Your task to perform on an android device: open app "Instagram" (install if not already installed) and enter user name: "nobler@yahoo.com" and password: "foraging" Image 0: 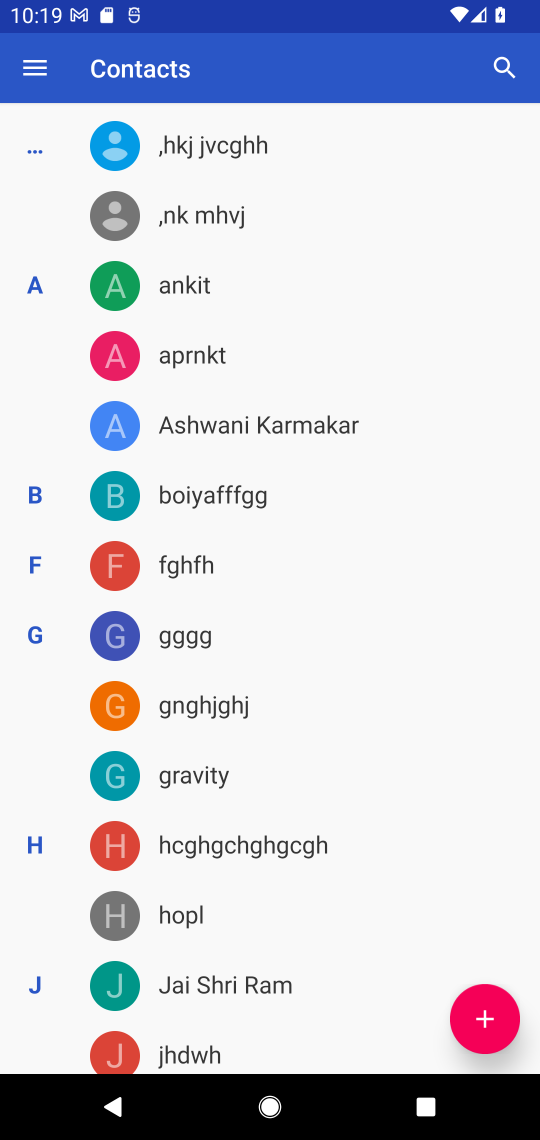
Step 0: press home button
Your task to perform on an android device: open app "Instagram" (install if not already installed) and enter user name: "nobler@yahoo.com" and password: "foraging" Image 1: 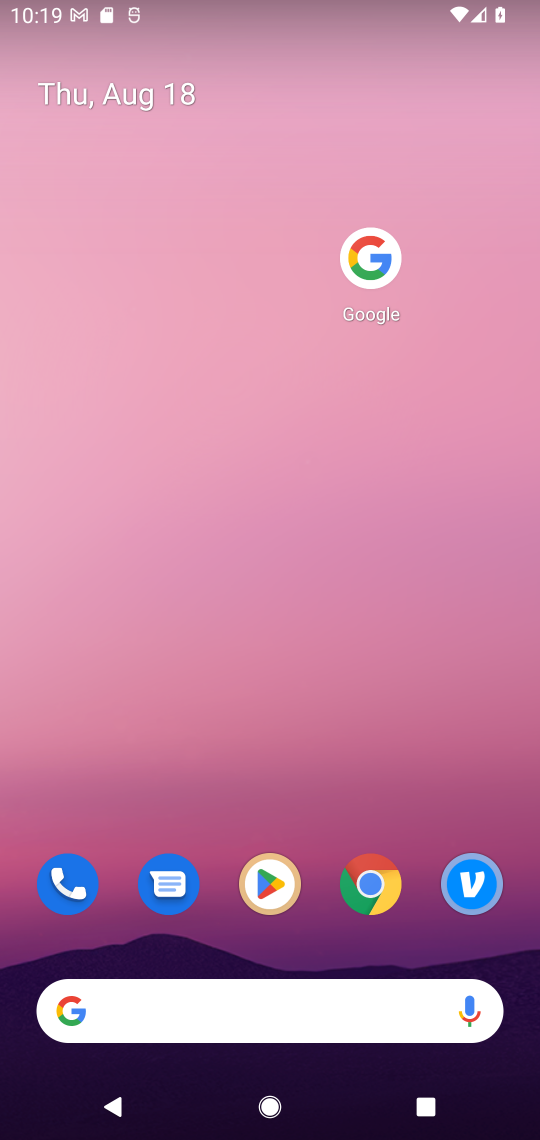
Step 1: click (292, 879)
Your task to perform on an android device: open app "Instagram" (install if not already installed) and enter user name: "nobler@yahoo.com" and password: "foraging" Image 2: 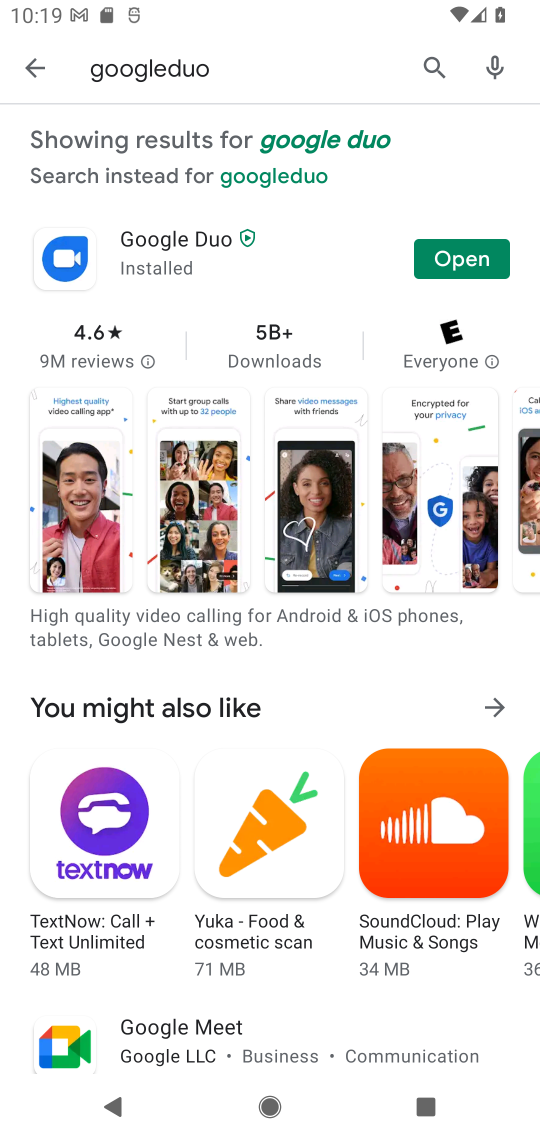
Step 2: click (430, 65)
Your task to perform on an android device: open app "Instagram" (install if not already installed) and enter user name: "nobler@yahoo.com" and password: "foraging" Image 3: 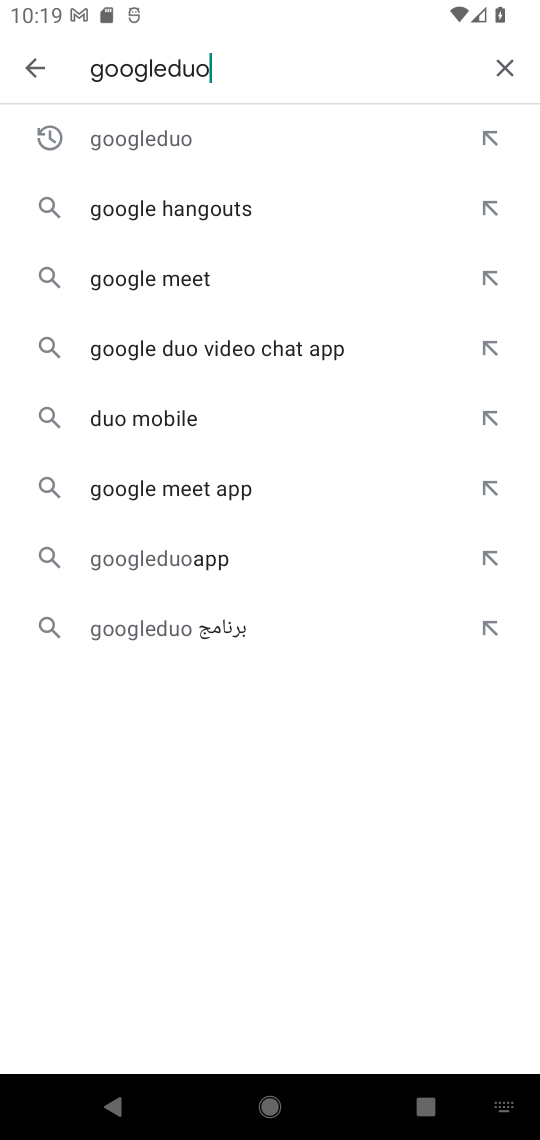
Step 3: click (495, 65)
Your task to perform on an android device: open app "Instagram" (install if not already installed) and enter user name: "nobler@yahoo.com" and password: "foraging" Image 4: 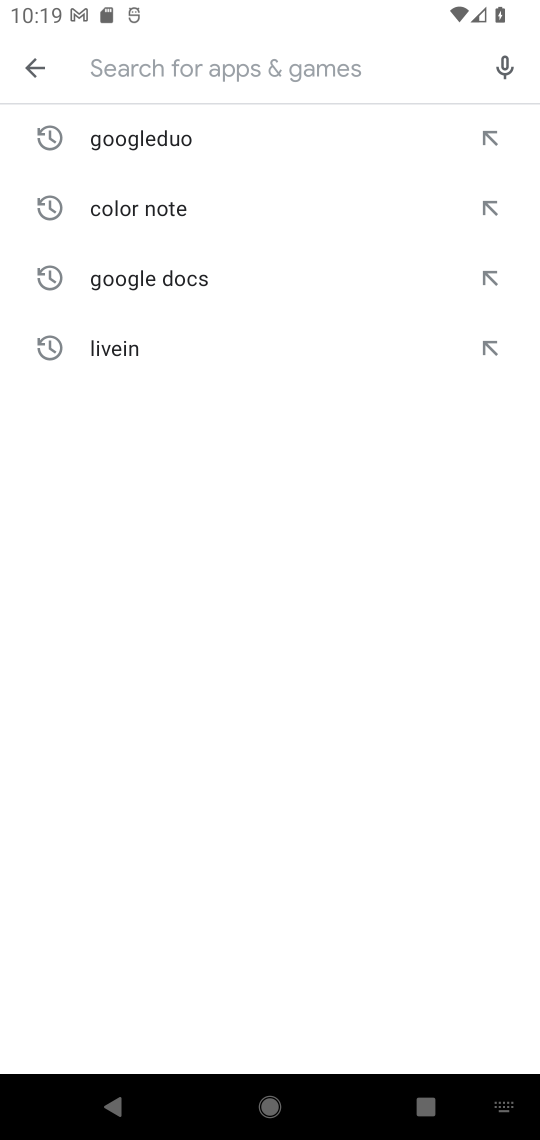
Step 4: type "instagram"
Your task to perform on an android device: open app "Instagram" (install if not already installed) and enter user name: "nobler@yahoo.com" and password: "foraging" Image 5: 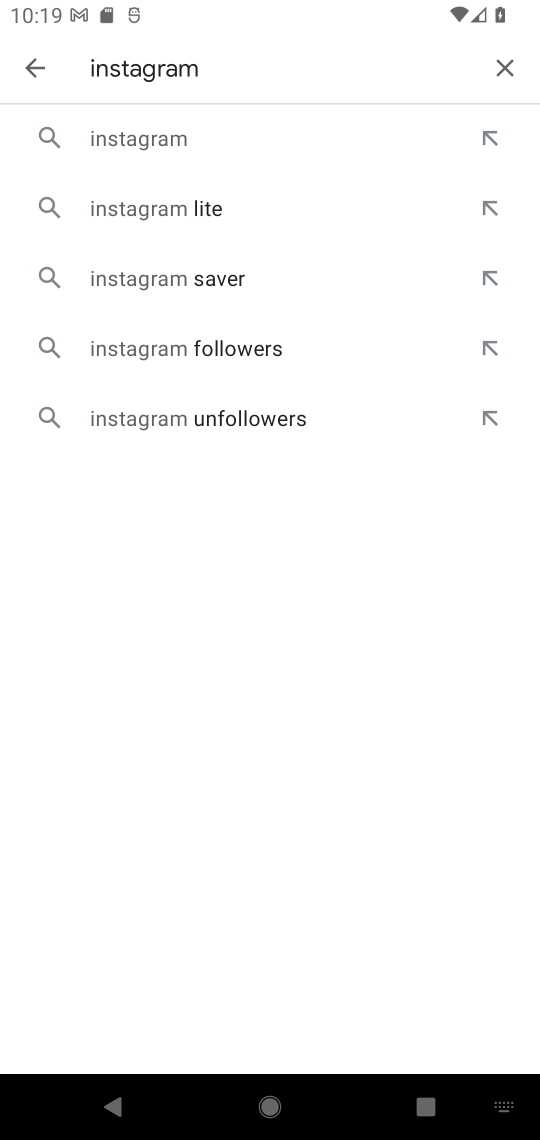
Step 5: click (275, 145)
Your task to perform on an android device: open app "Instagram" (install if not already installed) and enter user name: "nobler@yahoo.com" and password: "foraging" Image 6: 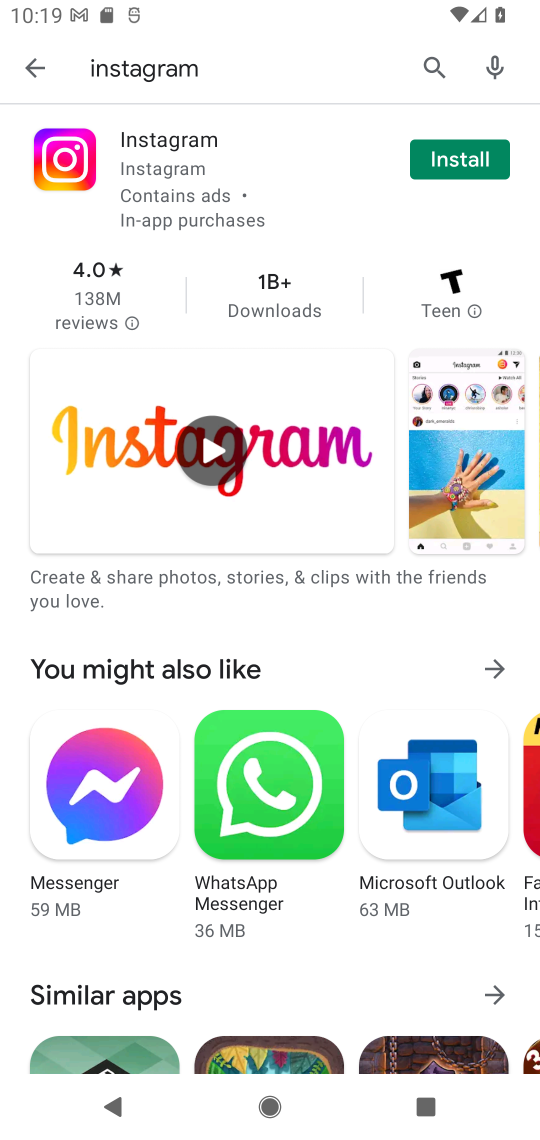
Step 6: click (478, 152)
Your task to perform on an android device: open app "Instagram" (install if not already installed) and enter user name: "nobler@yahoo.com" and password: "foraging" Image 7: 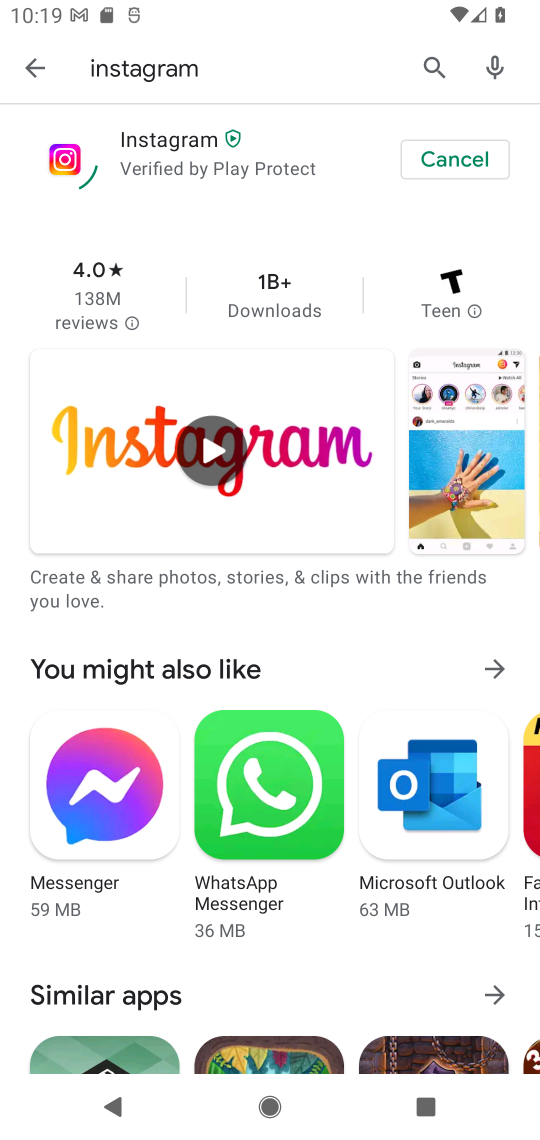
Step 7: task complete